Your task to perform on an android device: Open my contact list Image 0: 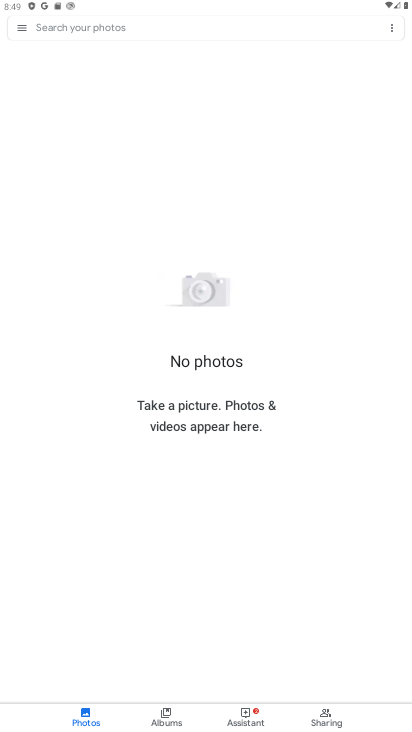
Step 0: press back button
Your task to perform on an android device: Open my contact list Image 1: 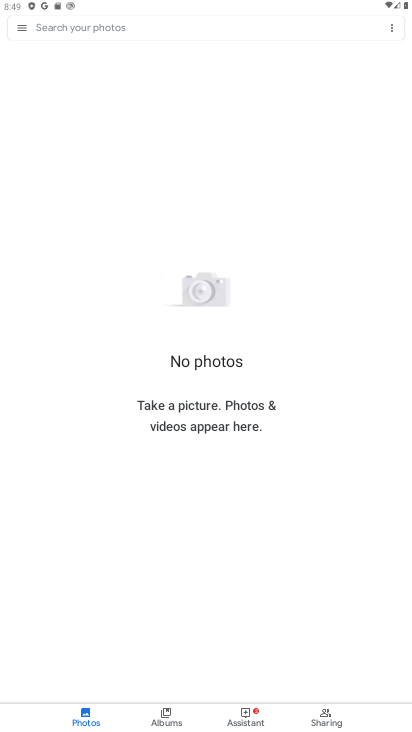
Step 1: press back button
Your task to perform on an android device: Open my contact list Image 2: 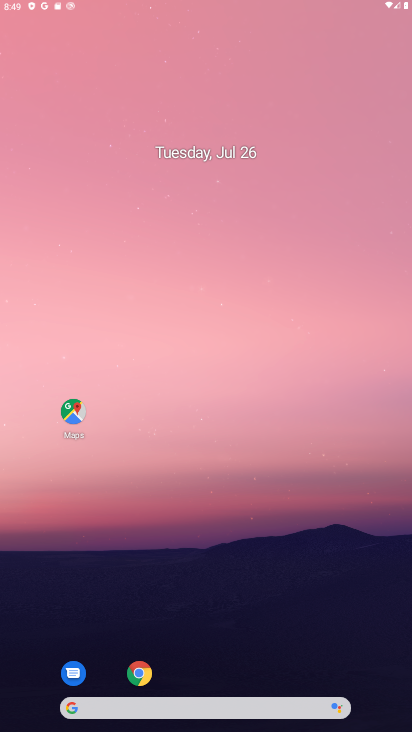
Step 2: press back button
Your task to perform on an android device: Open my contact list Image 3: 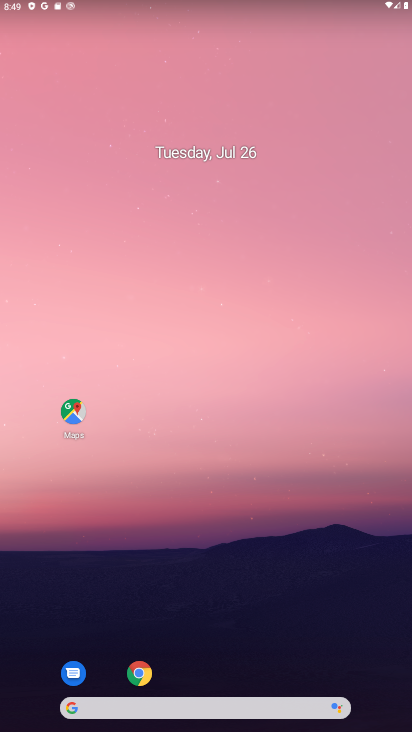
Step 3: drag from (249, 628) to (198, 8)
Your task to perform on an android device: Open my contact list Image 4: 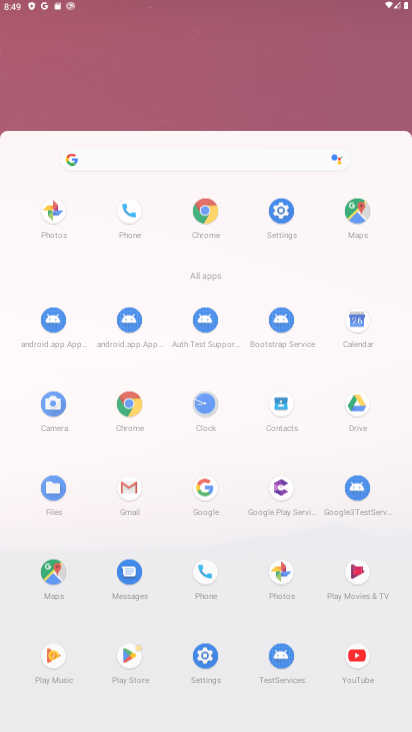
Step 4: drag from (172, 464) to (148, 5)
Your task to perform on an android device: Open my contact list Image 5: 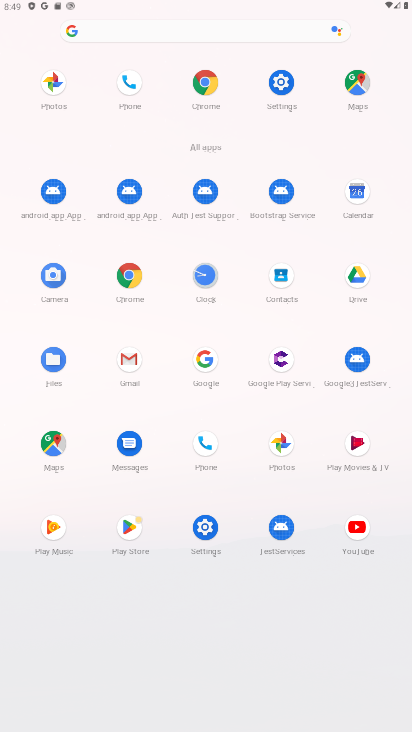
Step 5: drag from (163, 370) to (151, 74)
Your task to perform on an android device: Open my contact list Image 6: 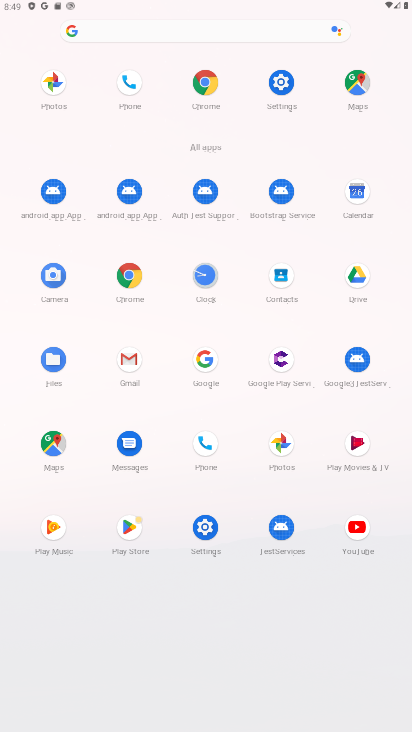
Step 6: click (280, 268)
Your task to perform on an android device: Open my contact list Image 7: 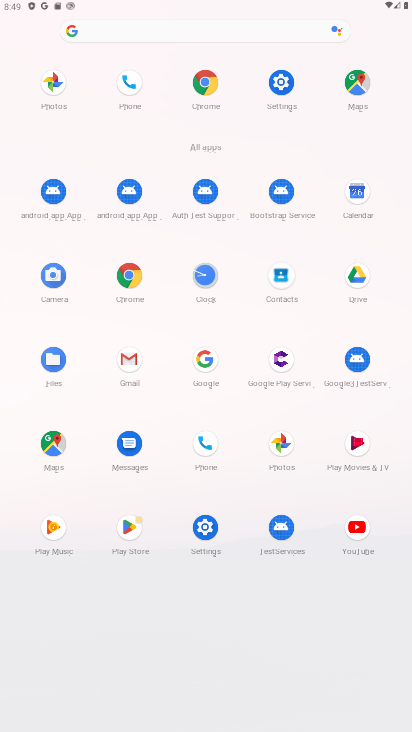
Step 7: click (279, 268)
Your task to perform on an android device: Open my contact list Image 8: 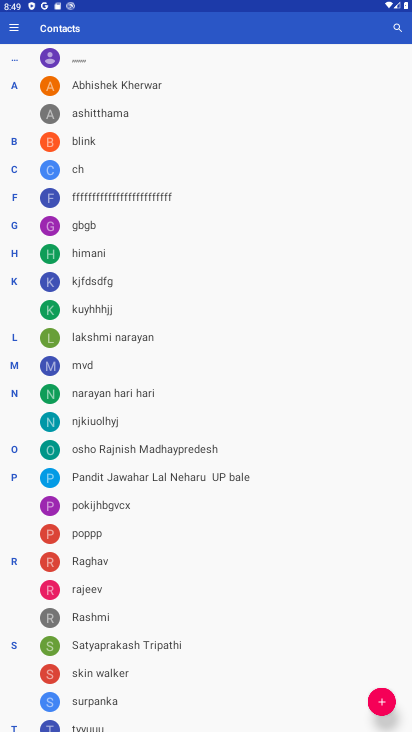
Step 8: task complete